Your task to perform on an android device: open app "Skype" (install if not already installed) Image 0: 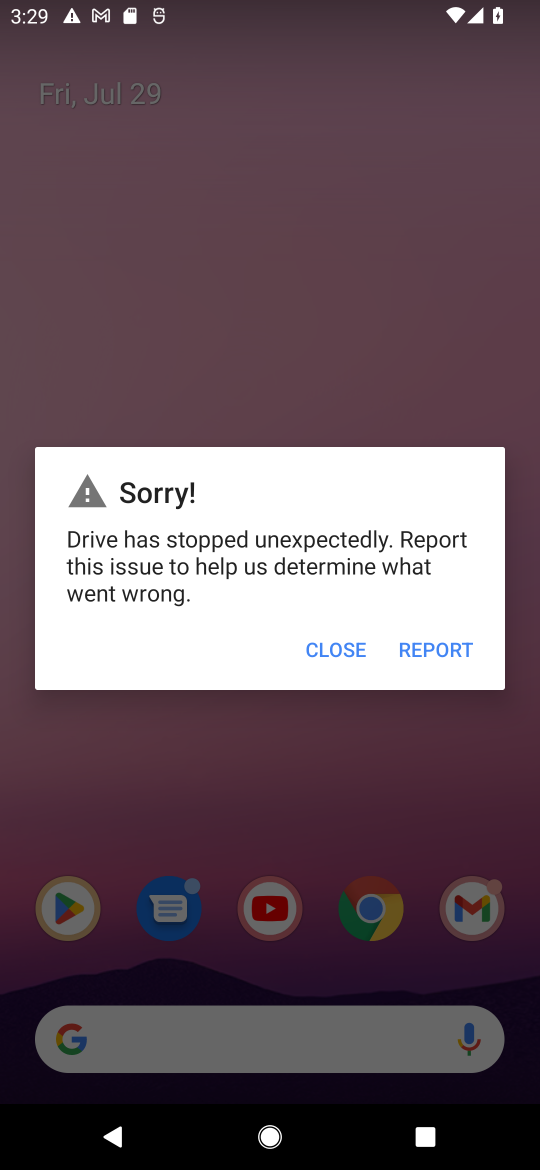
Step 0: press home button
Your task to perform on an android device: open app "Skype" (install if not already installed) Image 1: 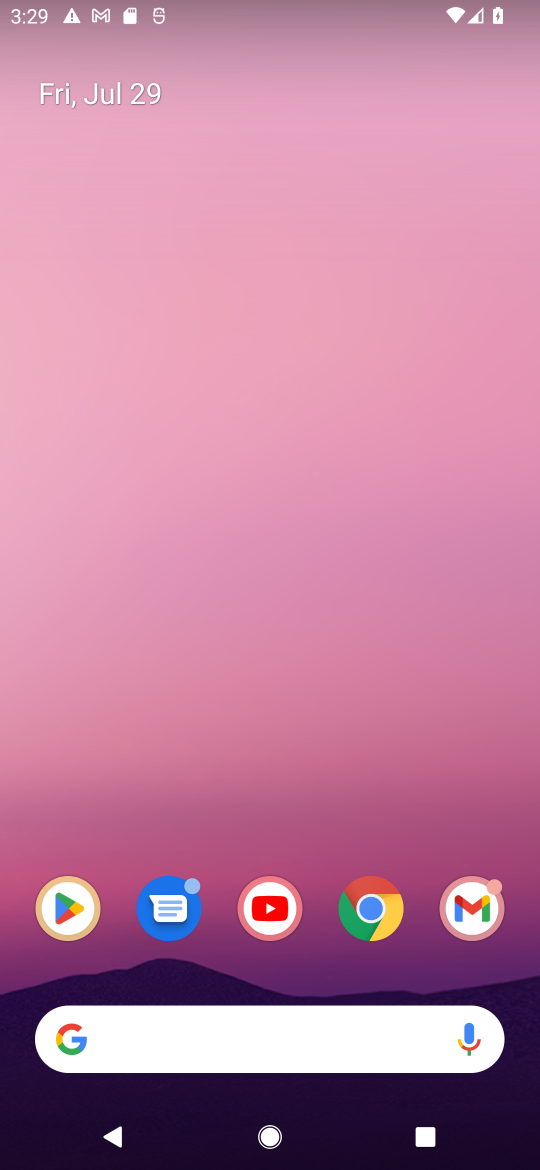
Step 1: click (53, 913)
Your task to perform on an android device: open app "Skype" (install if not already installed) Image 2: 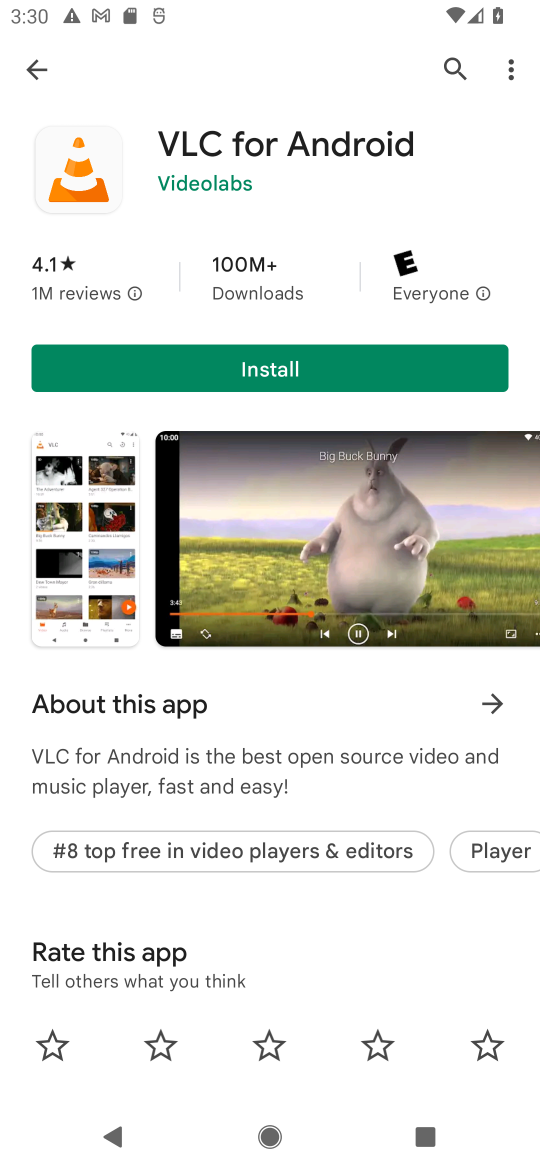
Step 2: click (445, 55)
Your task to perform on an android device: open app "Skype" (install if not already installed) Image 3: 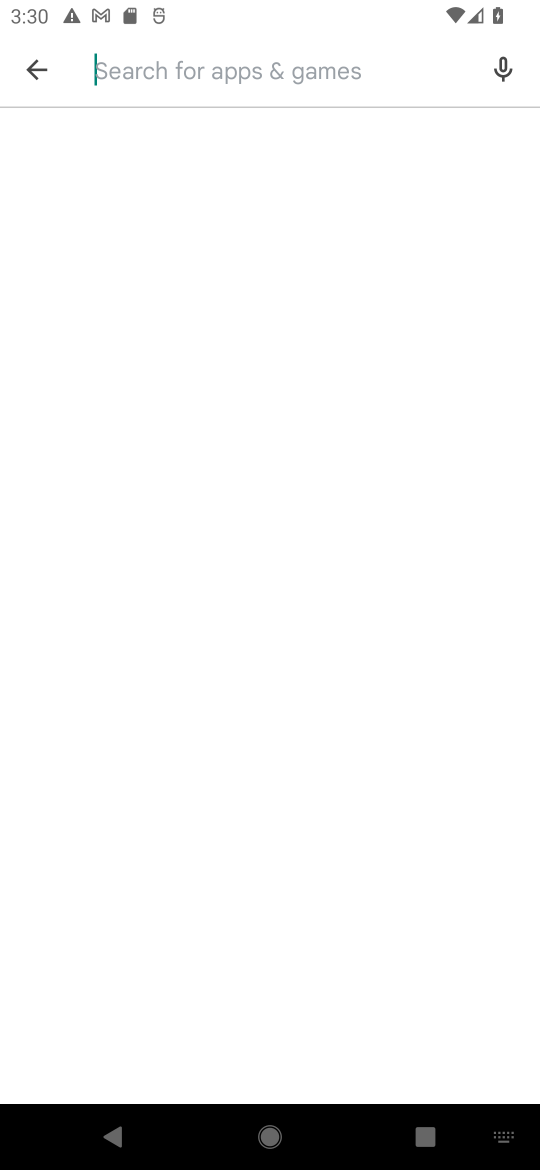
Step 3: type "skype"
Your task to perform on an android device: open app "Skype" (install if not already installed) Image 4: 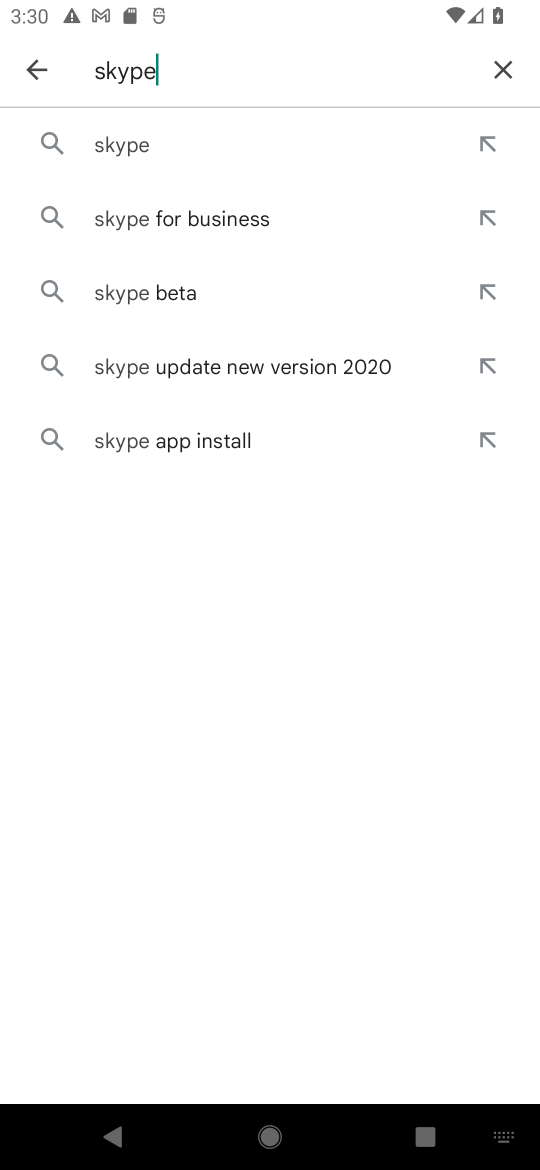
Step 4: click (205, 146)
Your task to perform on an android device: open app "Skype" (install if not already installed) Image 5: 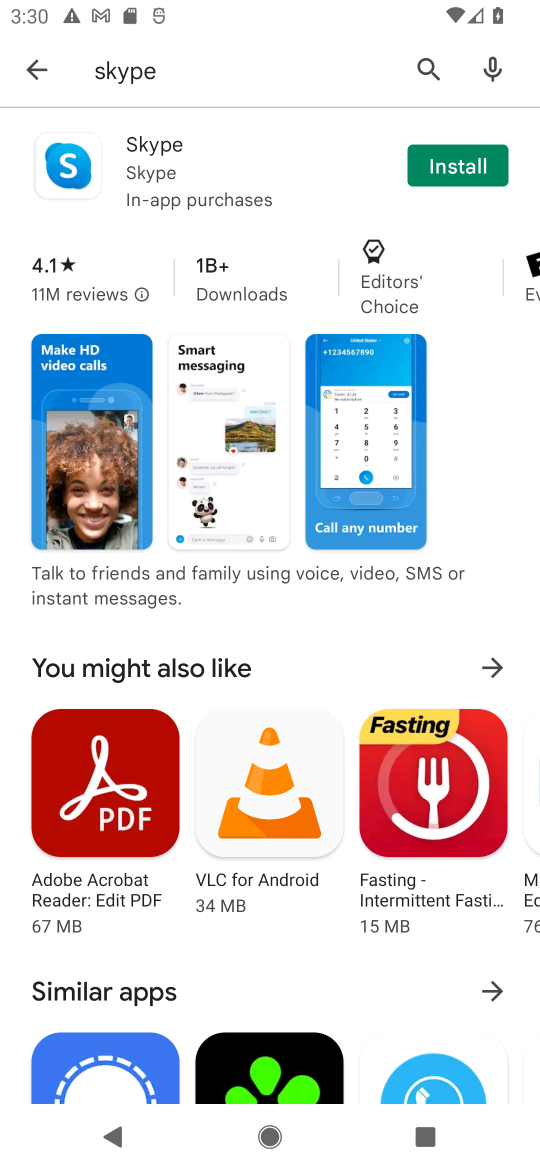
Step 5: click (457, 163)
Your task to perform on an android device: open app "Skype" (install if not already installed) Image 6: 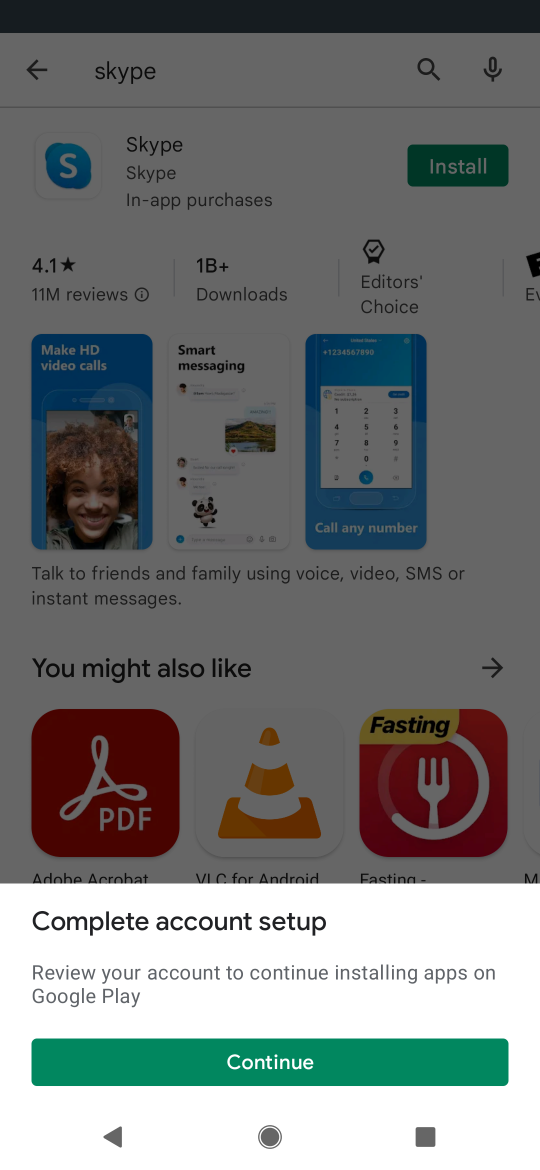
Step 6: click (216, 1069)
Your task to perform on an android device: open app "Skype" (install if not already installed) Image 7: 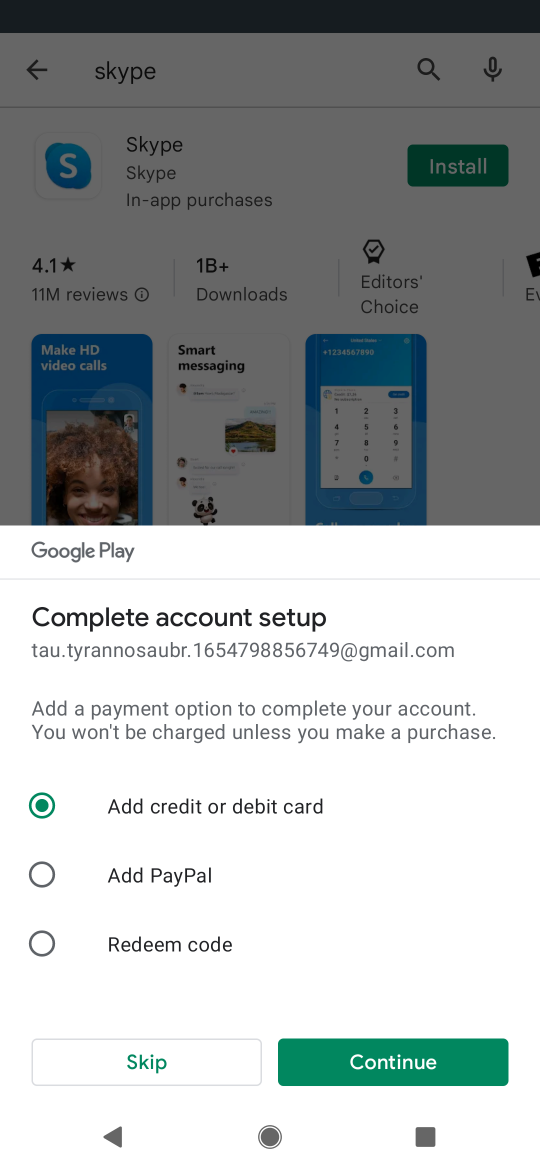
Step 7: click (120, 1051)
Your task to perform on an android device: open app "Skype" (install if not already installed) Image 8: 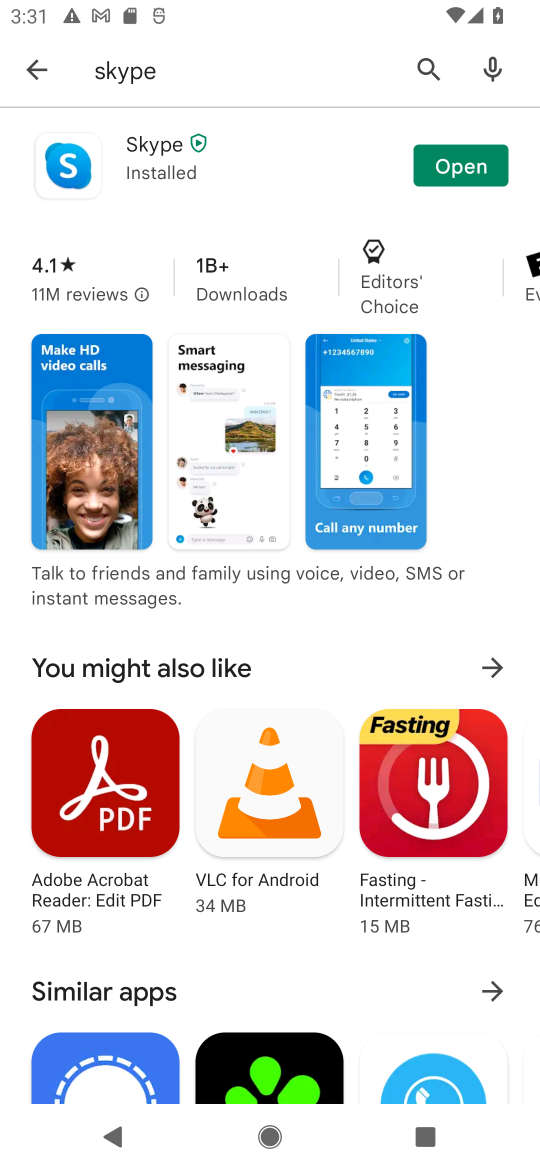
Step 8: click (482, 164)
Your task to perform on an android device: open app "Skype" (install if not already installed) Image 9: 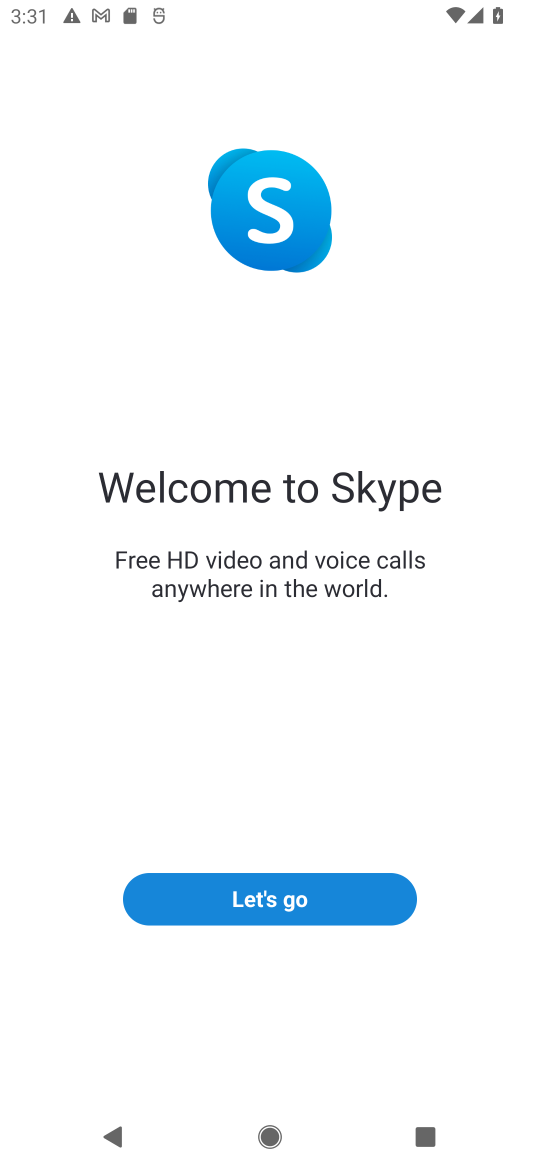
Step 9: click (248, 904)
Your task to perform on an android device: open app "Skype" (install if not already installed) Image 10: 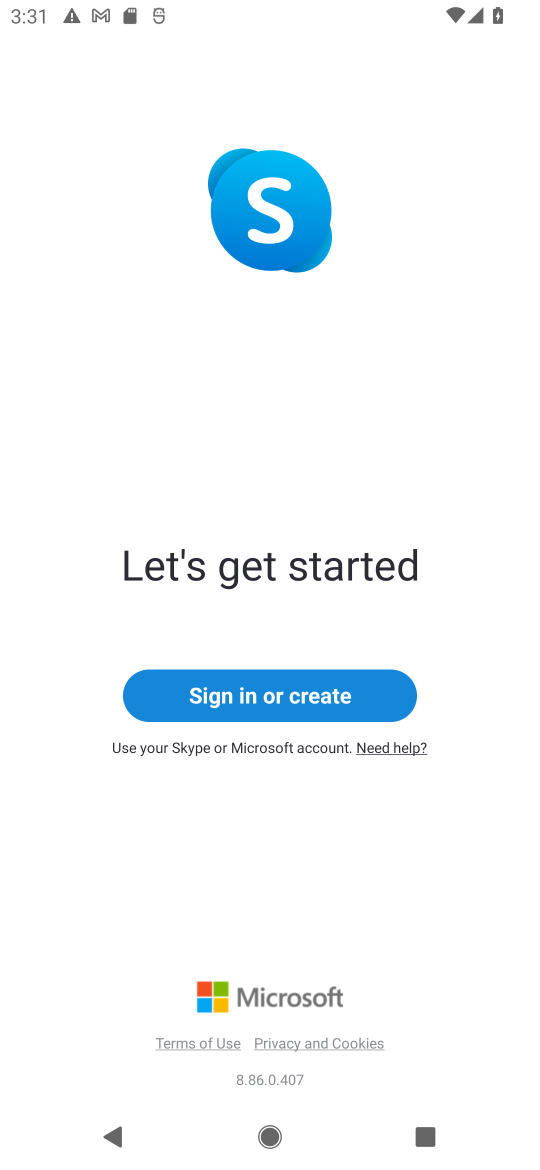
Step 10: task complete